Your task to perform on an android device: What's the price of the 1000-Watt EGO Power+ Snow Blower? Image 0: 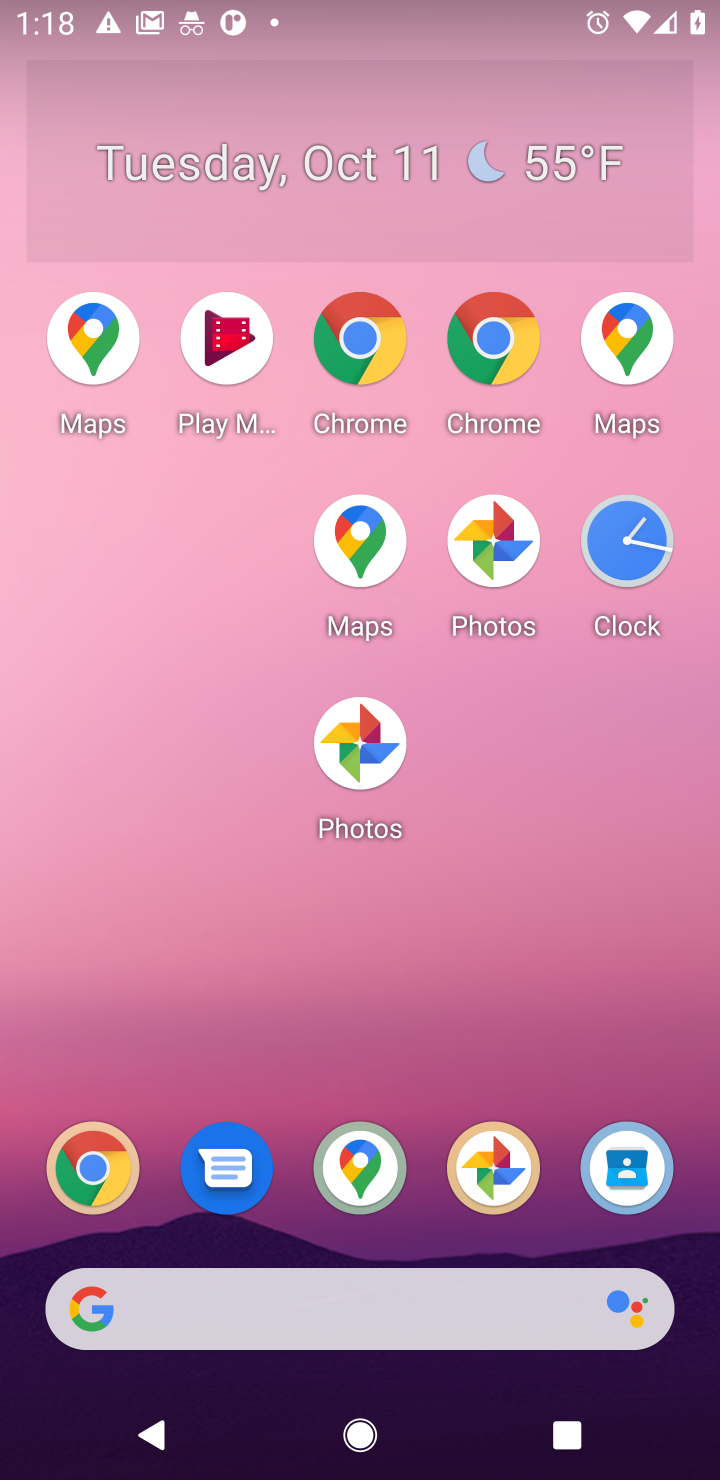
Step 0: drag from (434, 958) to (289, 0)
Your task to perform on an android device: What's the price of the 1000-Watt EGO Power+ Snow Blower? Image 1: 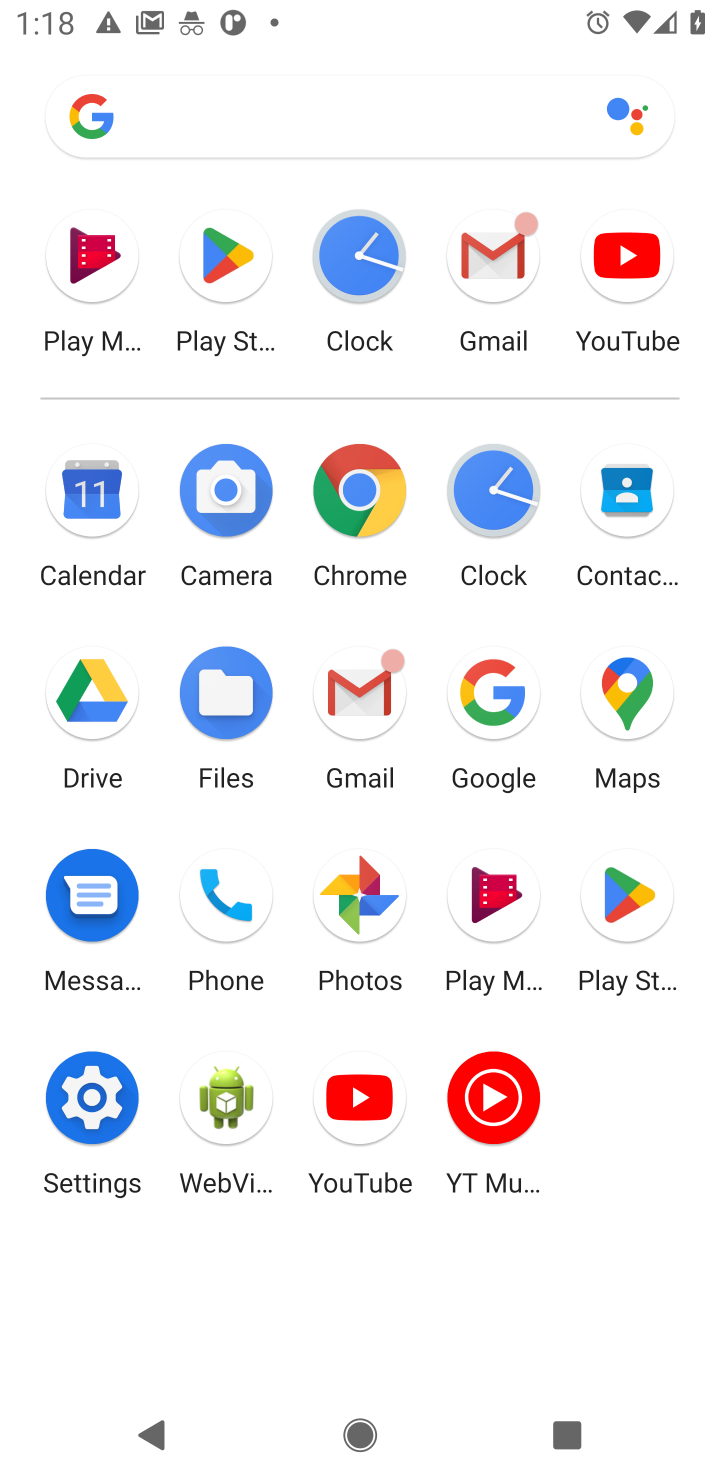
Step 1: click (508, 699)
Your task to perform on an android device: What's the price of the 1000-Watt EGO Power+ Snow Blower? Image 2: 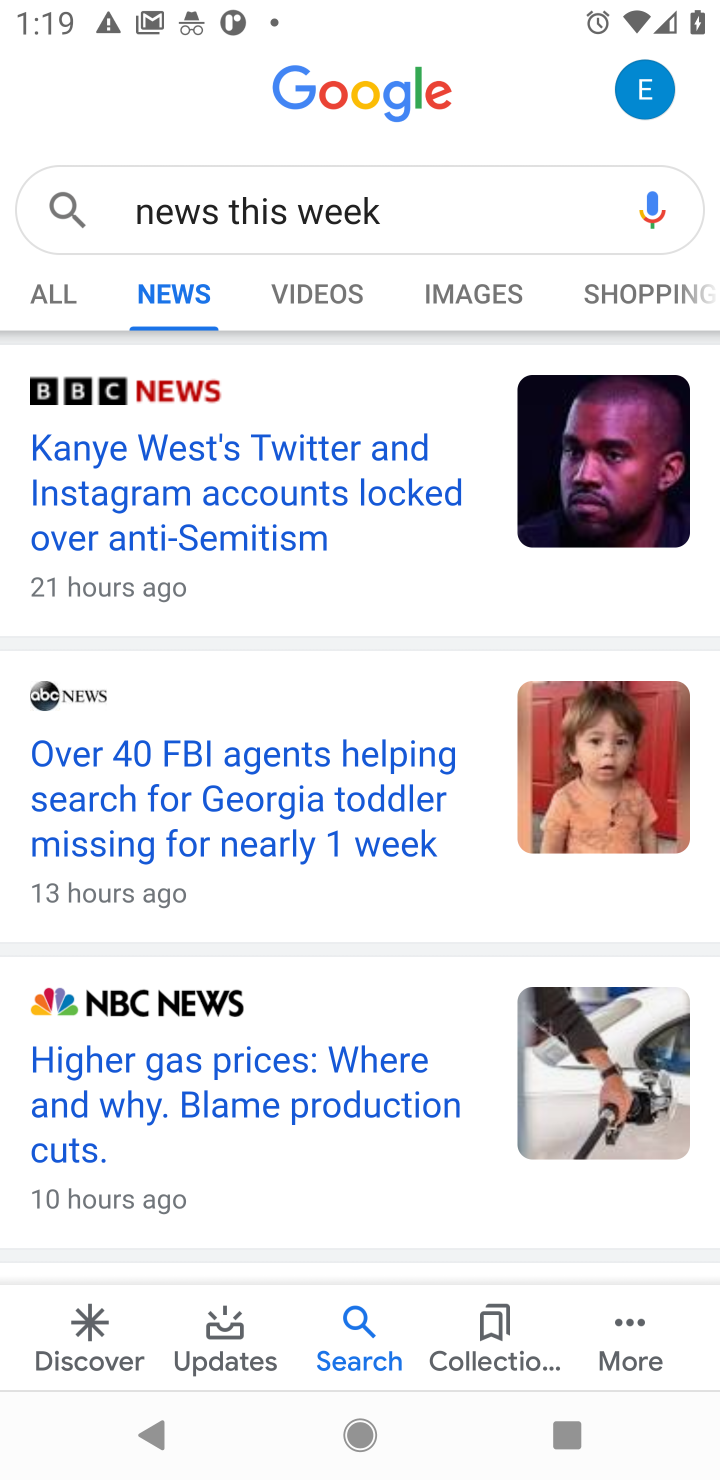
Step 2: click (498, 221)
Your task to perform on an android device: What's the price of the 1000-Watt EGO Power+ Snow Blower? Image 3: 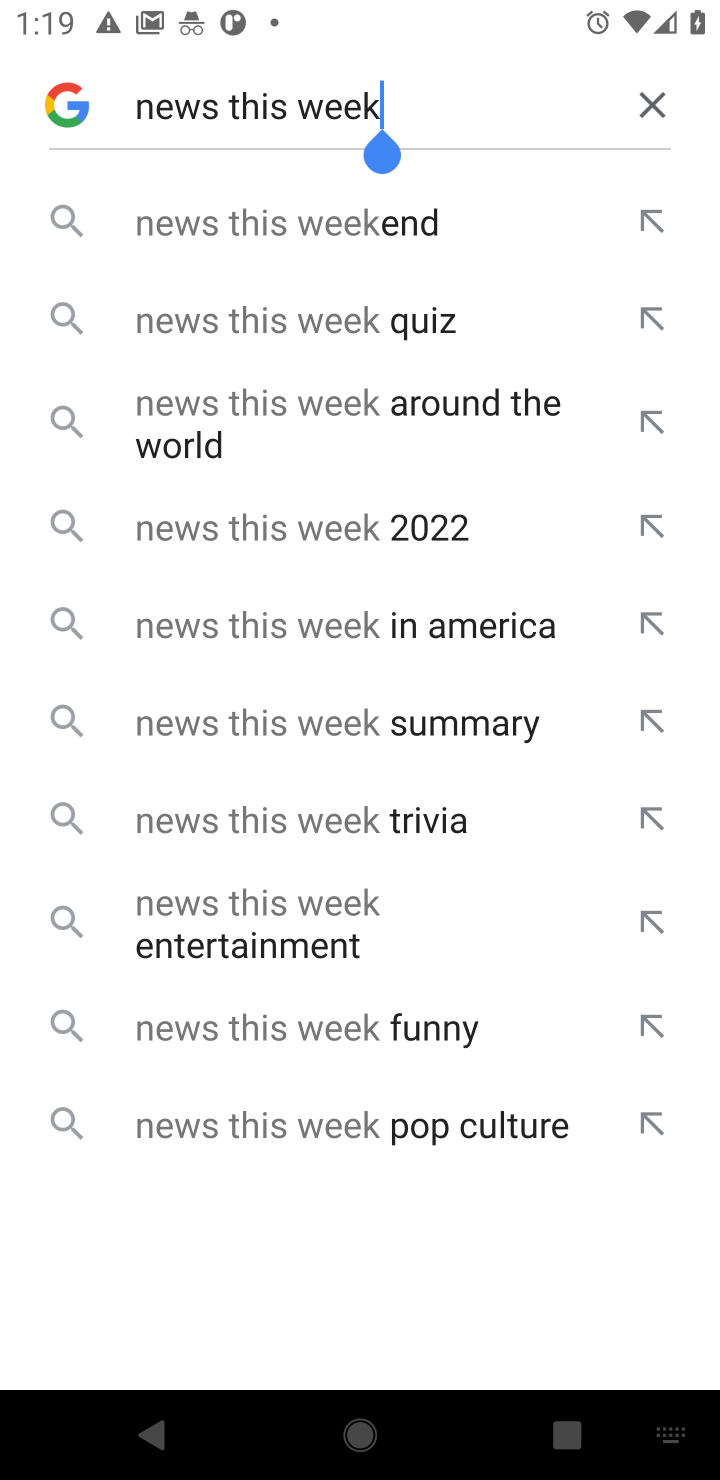
Step 3: click (650, 107)
Your task to perform on an android device: What's the price of the 1000-Watt EGO Power+ Snow Blower? Image 4: 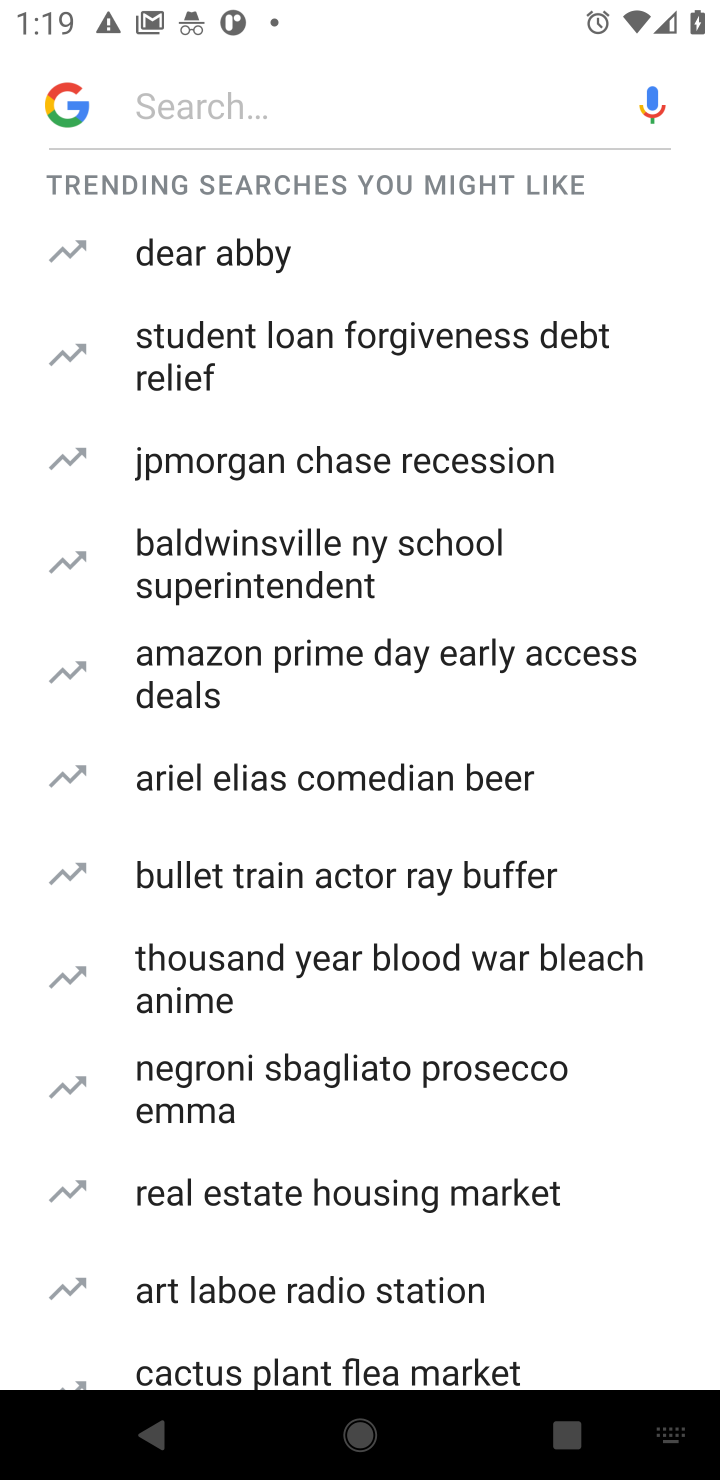
Step 4: type "What's the price of the 1000-Watt EGO Power+ Snow Blower?"
Your task to perform on an android device: What's the price of the 1000-Watt EGO Power+ Snow Blower? Image 5: 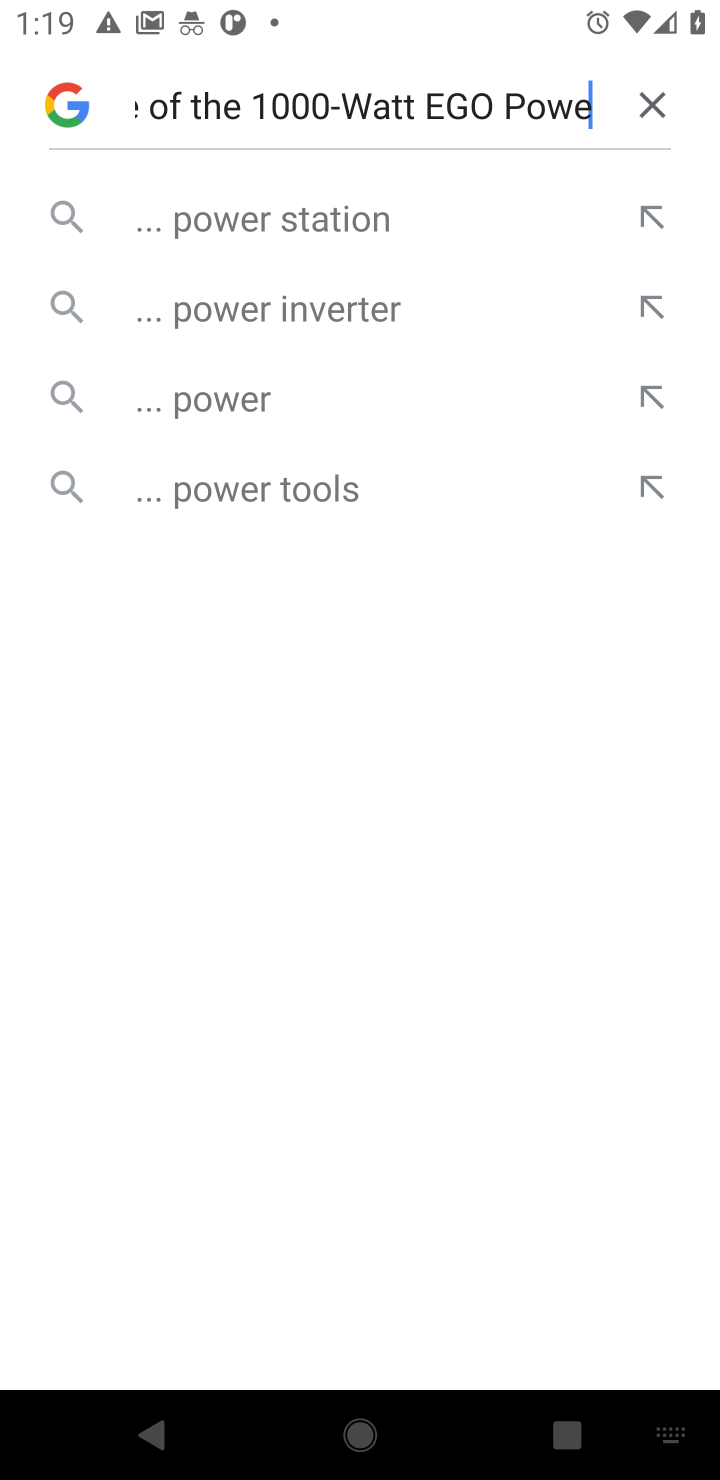
Step 5: type "r"
Your task to perform on an android device: What's the price of the 1000-Watt EGO Power+ Snow Blower? Image 6: 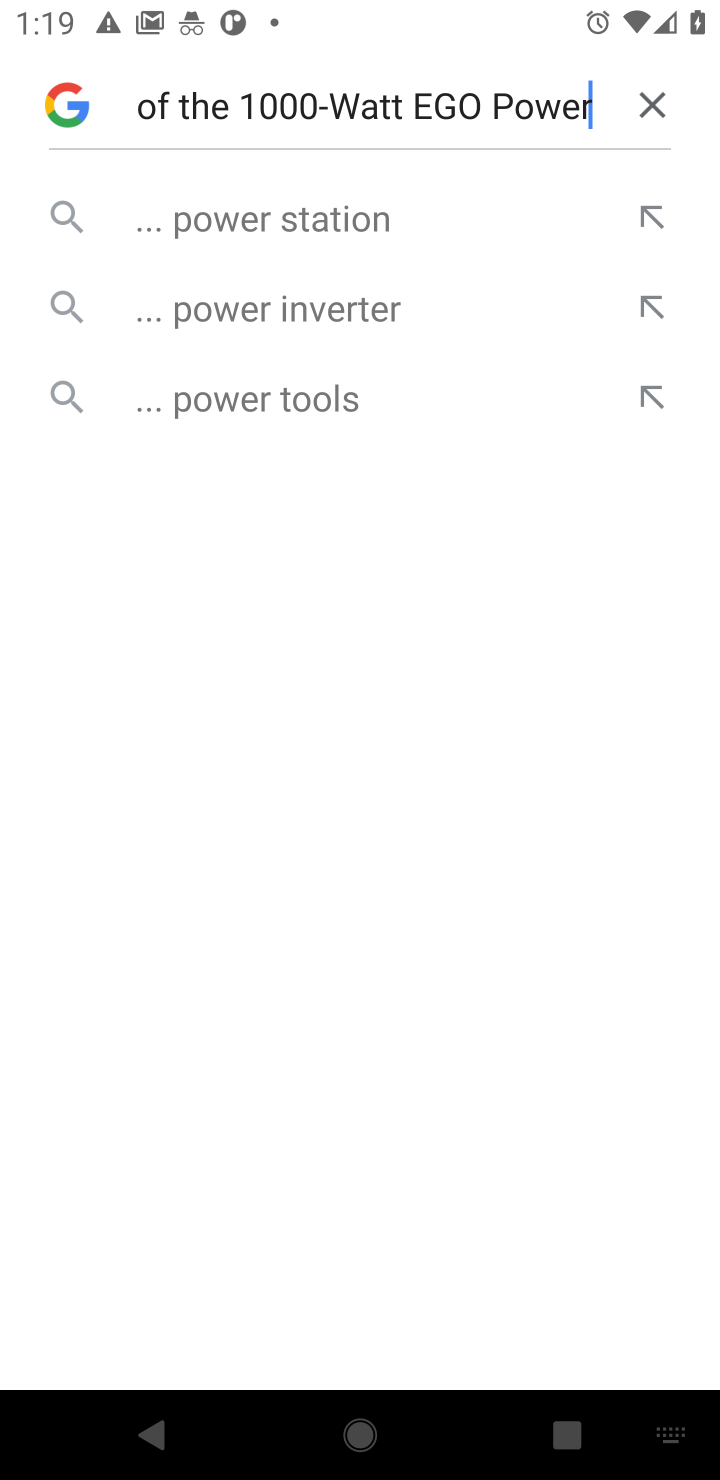
Step 6: type " blower"
Your task to perform on an android device: What's the price of the 1000-Watt EGO Power+ Snow Blower? Image 7: 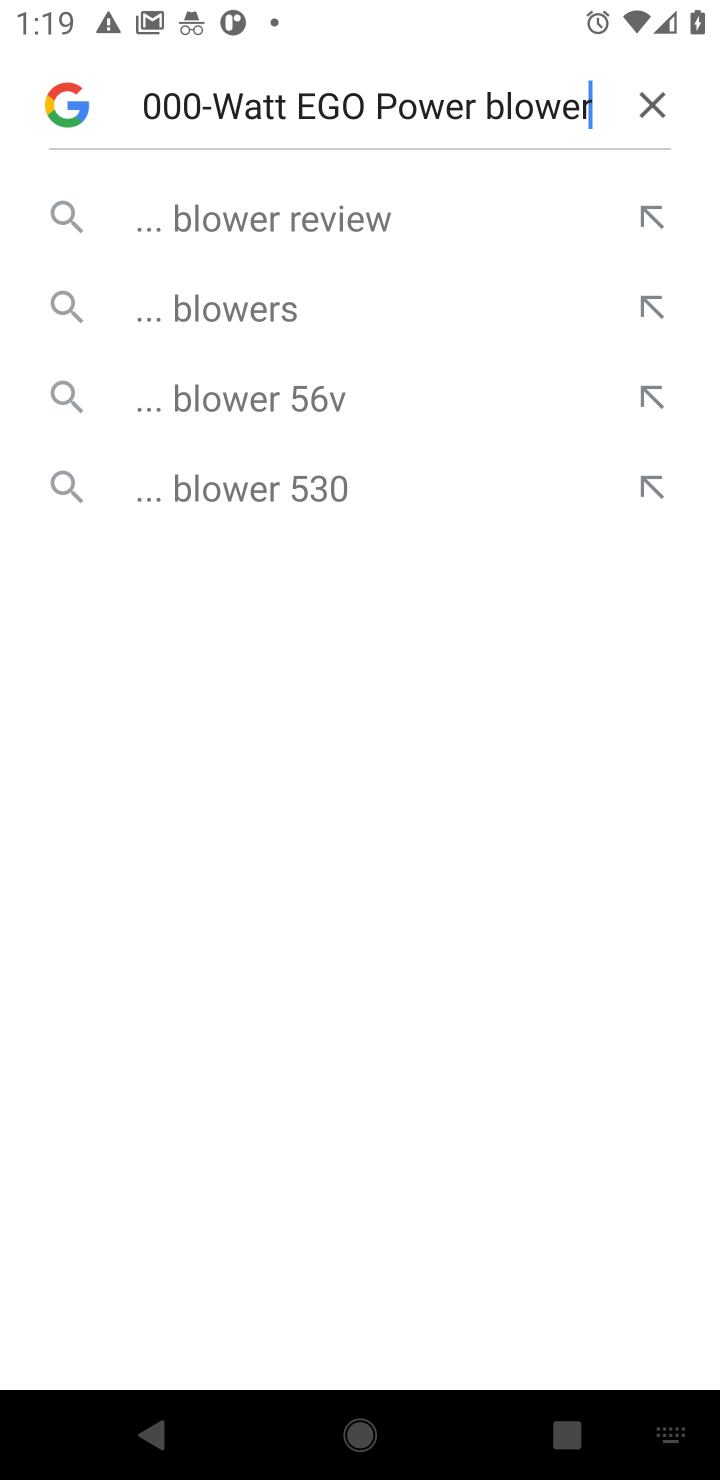
Step 7: click (352, 316)
Your task to perform on an android device: What's the price of the 1000-Watt EGO Power+ Snow Blower? Image 8: 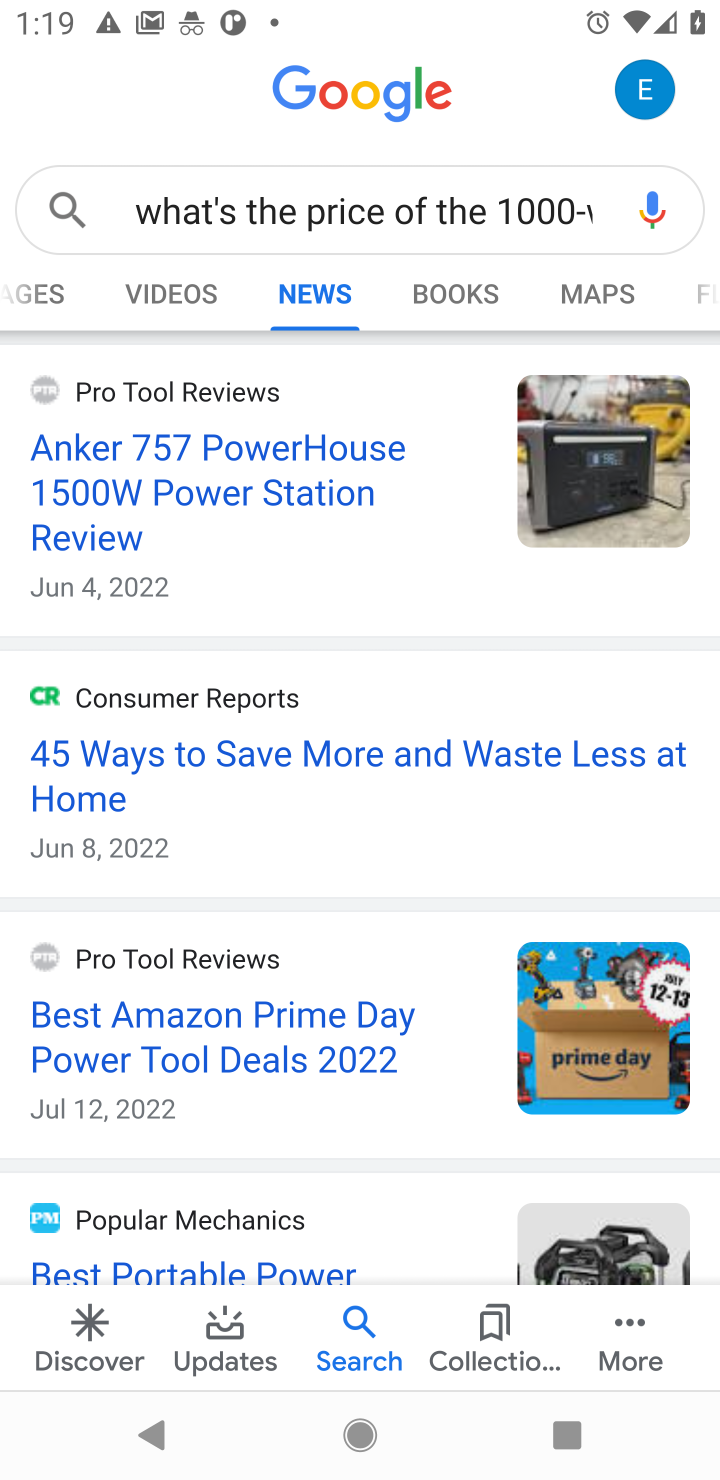
Step 8: drag from (68, 286) to (717, 264)
Your task to perform on an android device: What's the price of the 1000-Watt EGO Power+ Snow Blower? Image 9: 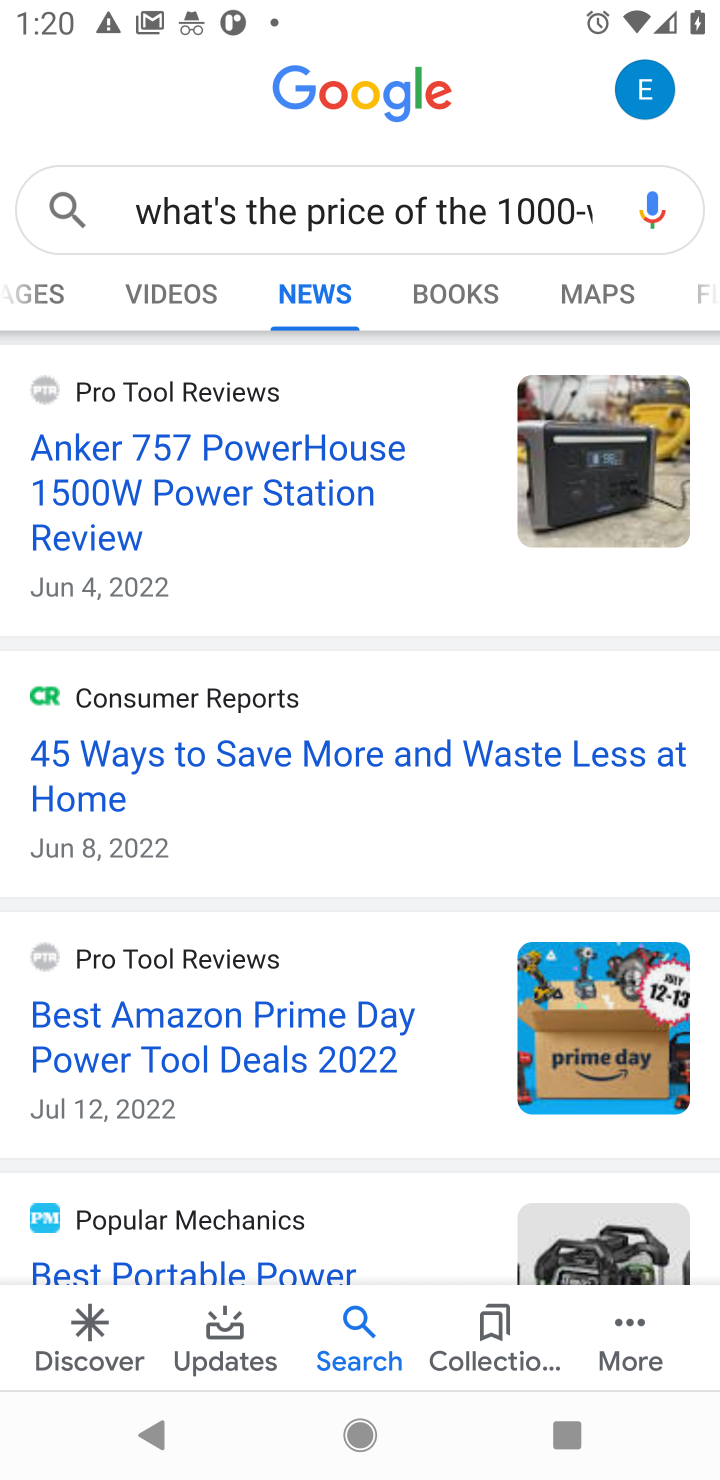
Step 9: drag from (257, 296) to (706, 306)
Your task to perform on an android device: What's the price of the 1000-Watt EGO Power+ Snow Blower? Image 10: 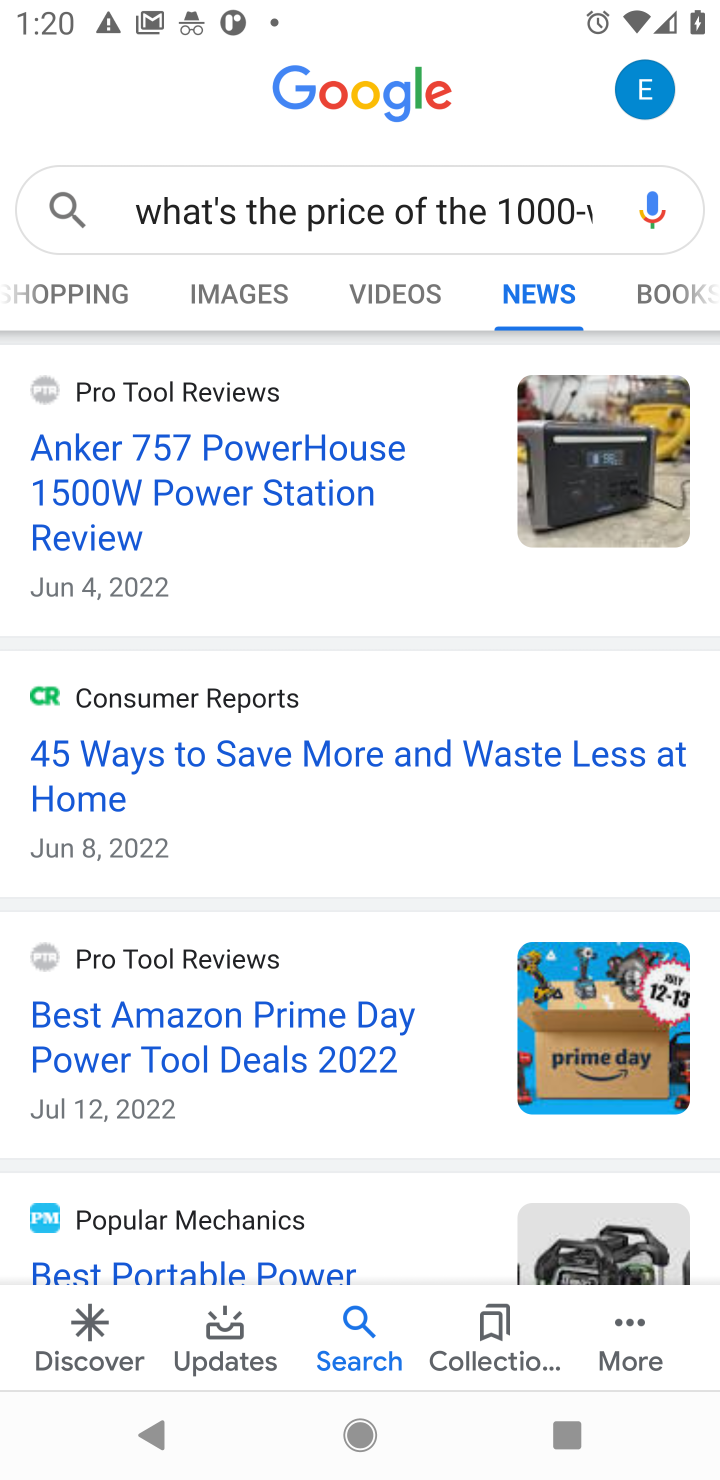
Step 10: drag from (82, 293) to (711, 259)
Your task to perform on an android device: What's the price of the 1000-Watt EGO Power+ Snow Blower? Image 11: 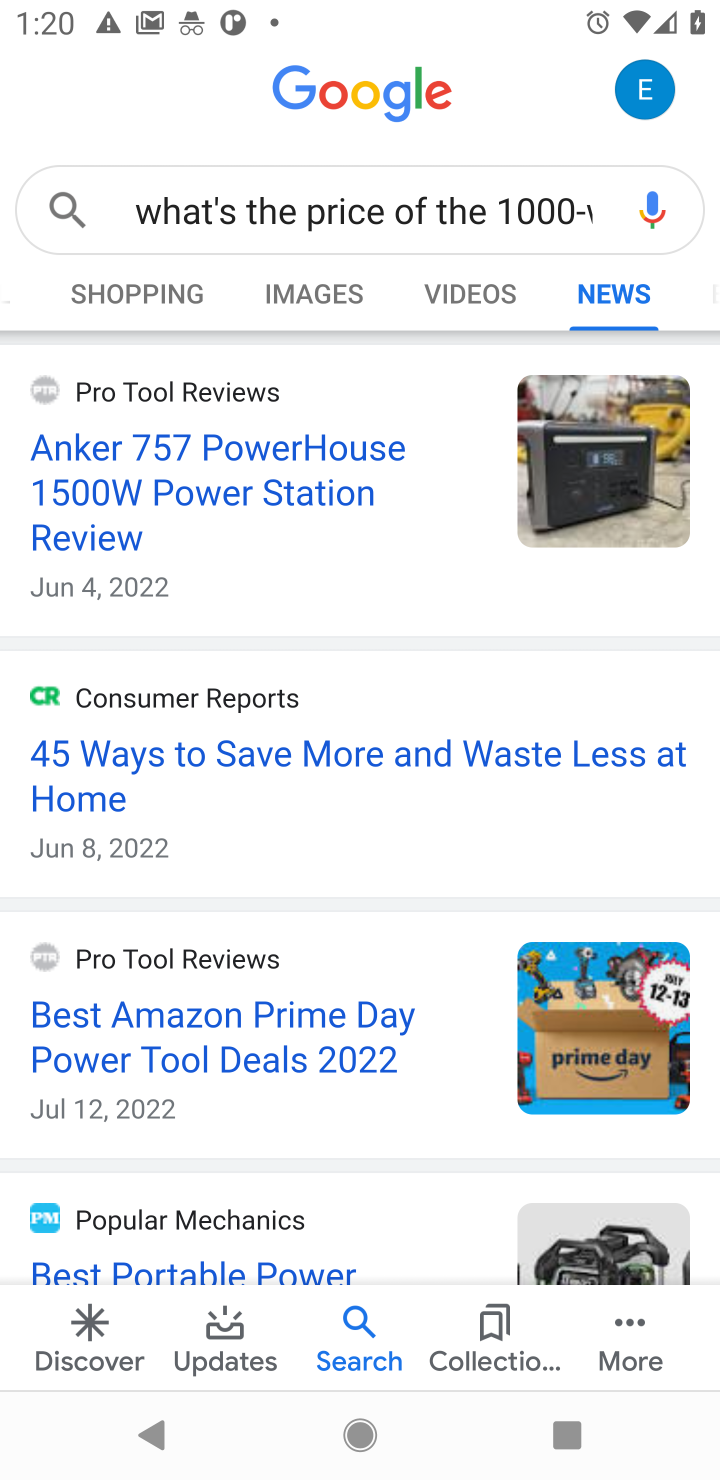
Step 11: drag from (88, 292) to (654, 294)
Your task to perform on an android device: What's the price of the 1000-Watt EGO Power+ Snow Blower? Image 12: 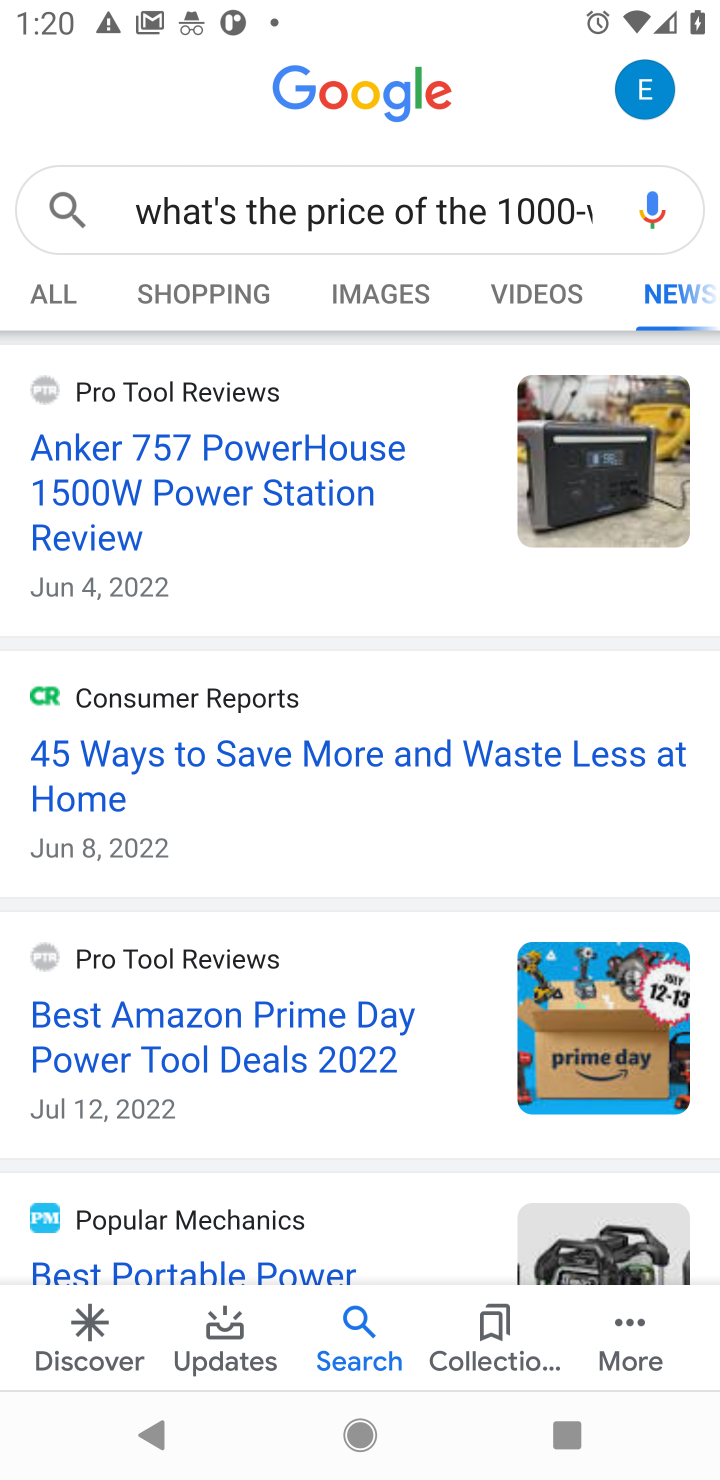
Step 12: click (38, 314)
Your task to perform on an android device: What's the price of the 1000-Watt EGO Power+ Snow Blower? Image 13: 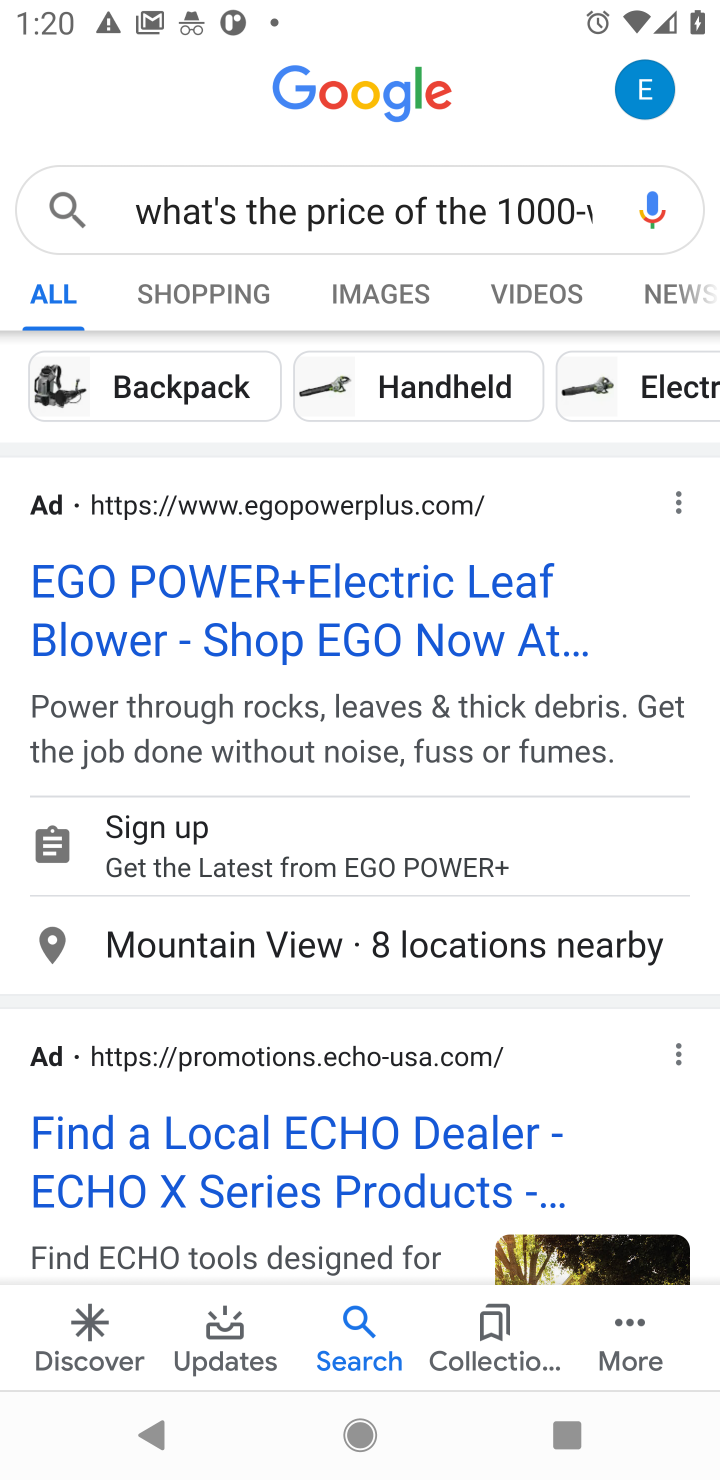
Step 13: task complete